Your task to perform on an android device: clear all cookies in the chrome app Image 0: 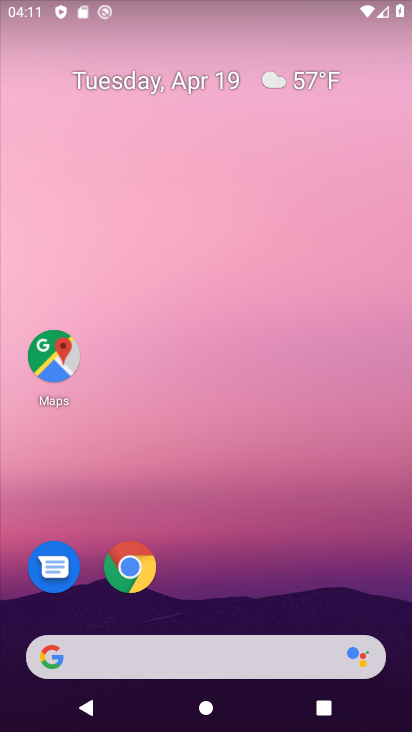
Step 0: drag from (353, 594) to (350, 157)
Your task to perform on an android device: clear all cookies in the chrome app Image 1: 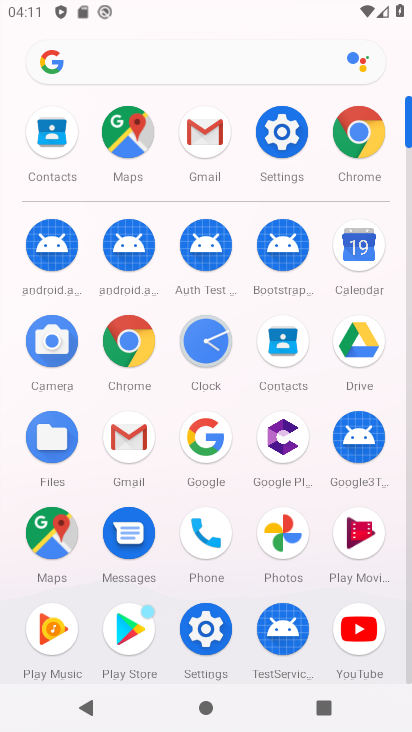
Step 1: click (134, 348)
Your task to perform on an android device: clear all cookies in the chrome app Image 2: 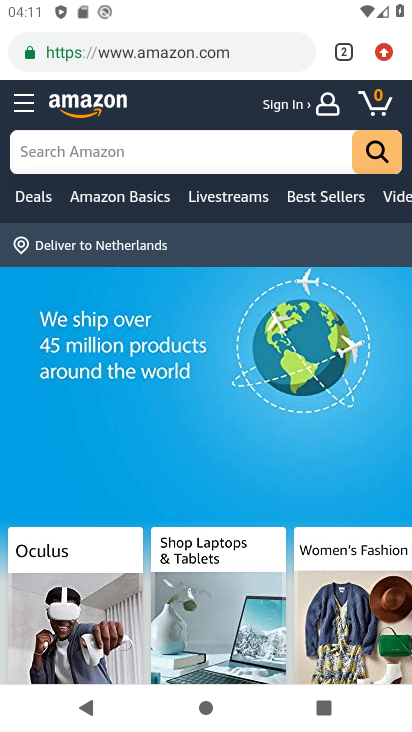
Step 2: click (383, 53)
Your task to perform on an android device: clear all cookies in the chrome app Image 3: 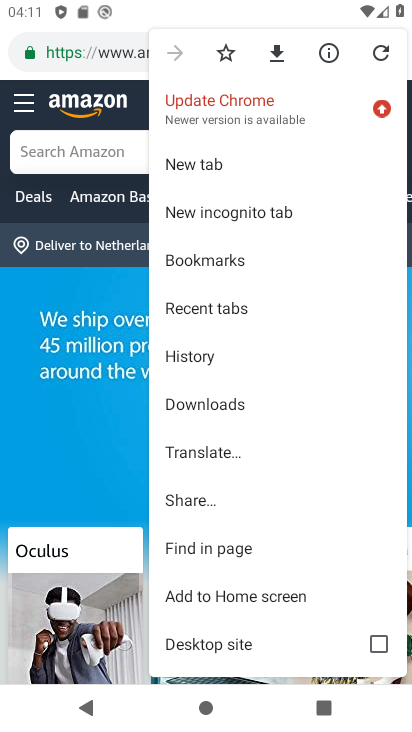
Step 3: drag from (318, 540) to (297, 378)
Your task to perform on an android device: clear all cookies in the chrome app Image 4: 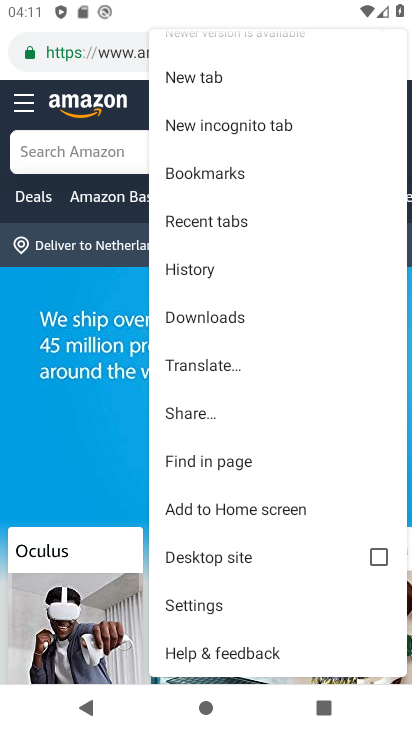
Step 4: click (205, 604)
Your task to perform on an android device: clear all cookies in the chrome app Image 5: 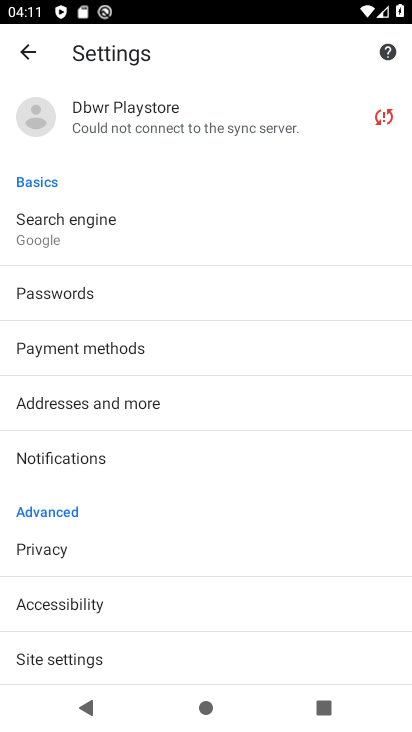
Step 5: drag from (282, 564) to (278, 406)
Your task to perform on an android device: clear all cookies in the chrome app Image 6: 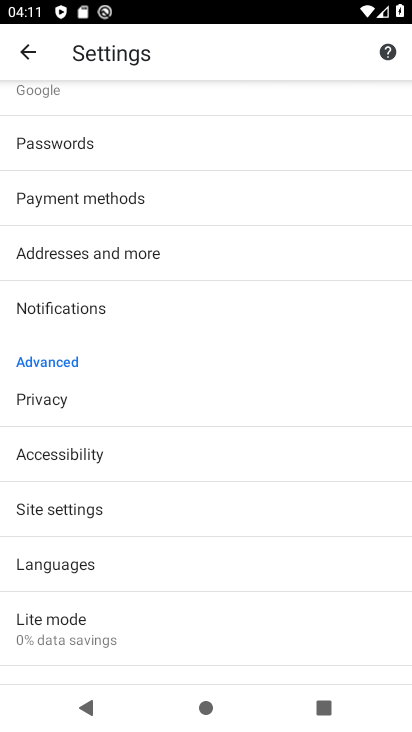
Step 6: drag from (273, 606) to (270, 439)
Your task to perform on an android device: clear all cookies in the chrome app Image 7: 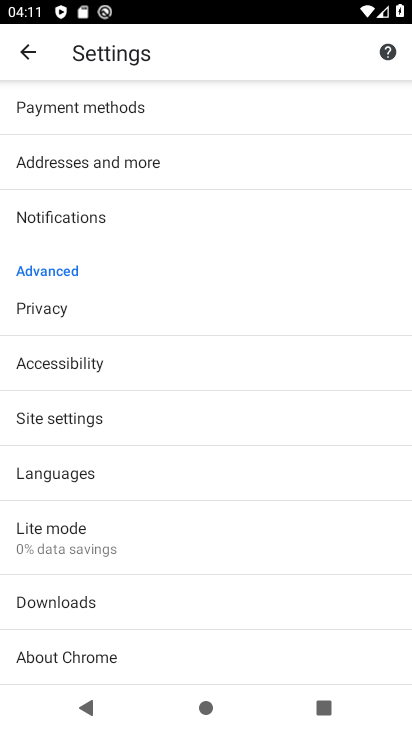
Step 7: drag from (265, 338) to (265, 478)
Your task to perform on an android device: clear all cookies in the chrome app Image 8: 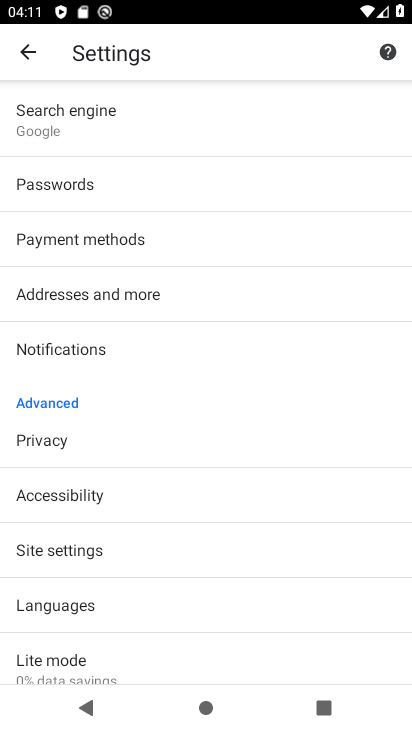
Step 8: click (194, 427)
Your task to perform on an android device: clear all cookies in the chrome app Image 9: 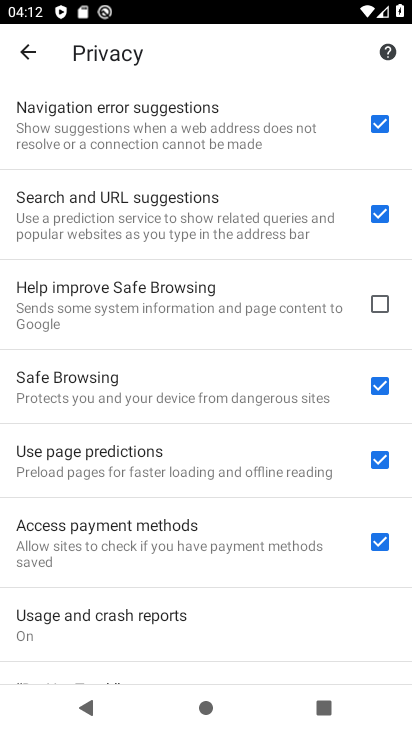
Step 9: drag from (270, 601) to (261, 486)
Your task to perform on an android device: clear all cookies in the chrome app Image 10: 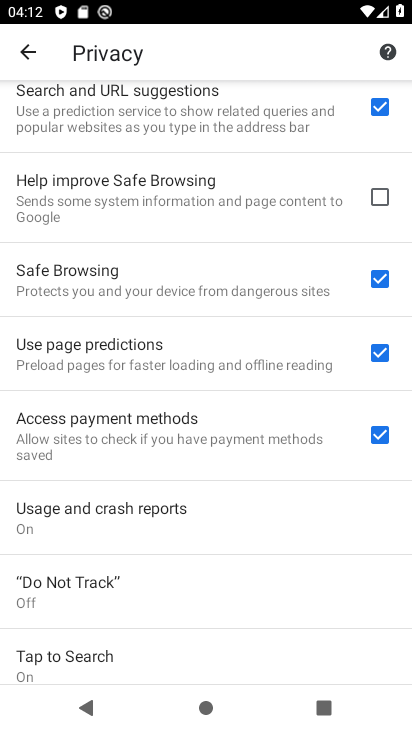
Step 10: drag from (264, 584) to (257, 452)
Your task to perform on an android device: clear all cookies in the chrome app Image 11: 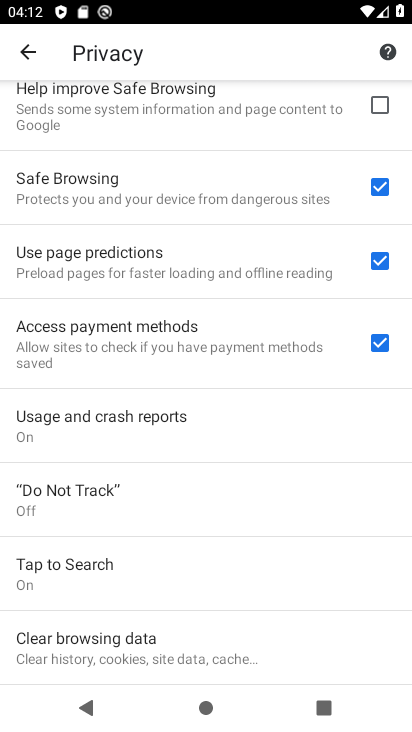
Step 11: click (164, 650)
Your task to perform on an android device: clear all cookies in the chrome app Image 12: 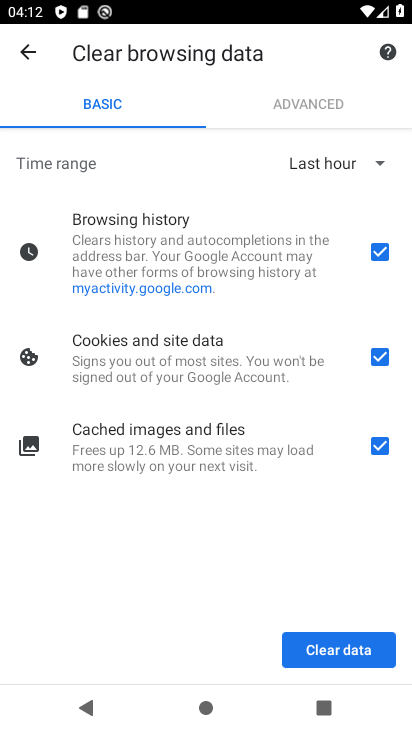
Step 12: click (304, 640)
Your task to perform on an android device: clear all cookies in the chrome app Image 13: 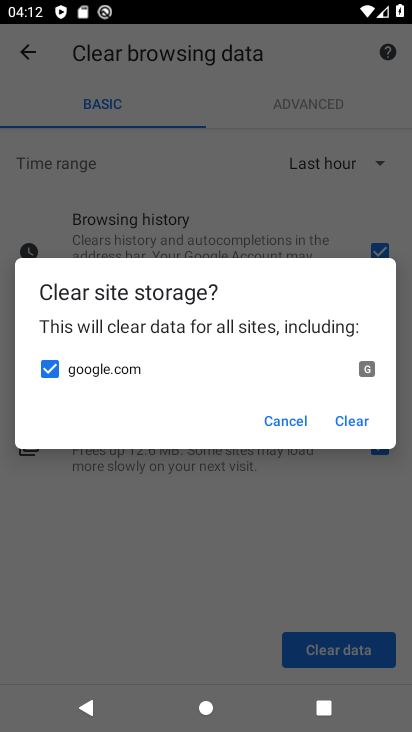
Step 13: click (346, 417)
Your task to perform on an android device: clear all cookies in the chrome app Image 14: 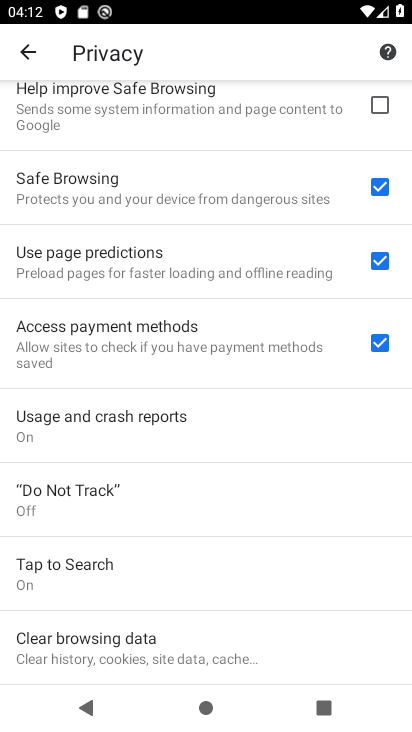
Step 14: task complete